Your task to perform on an android device: open app "Lyft - Rideshare, Bikes, Scooters & Transit" (install if not already installed) Image 0: 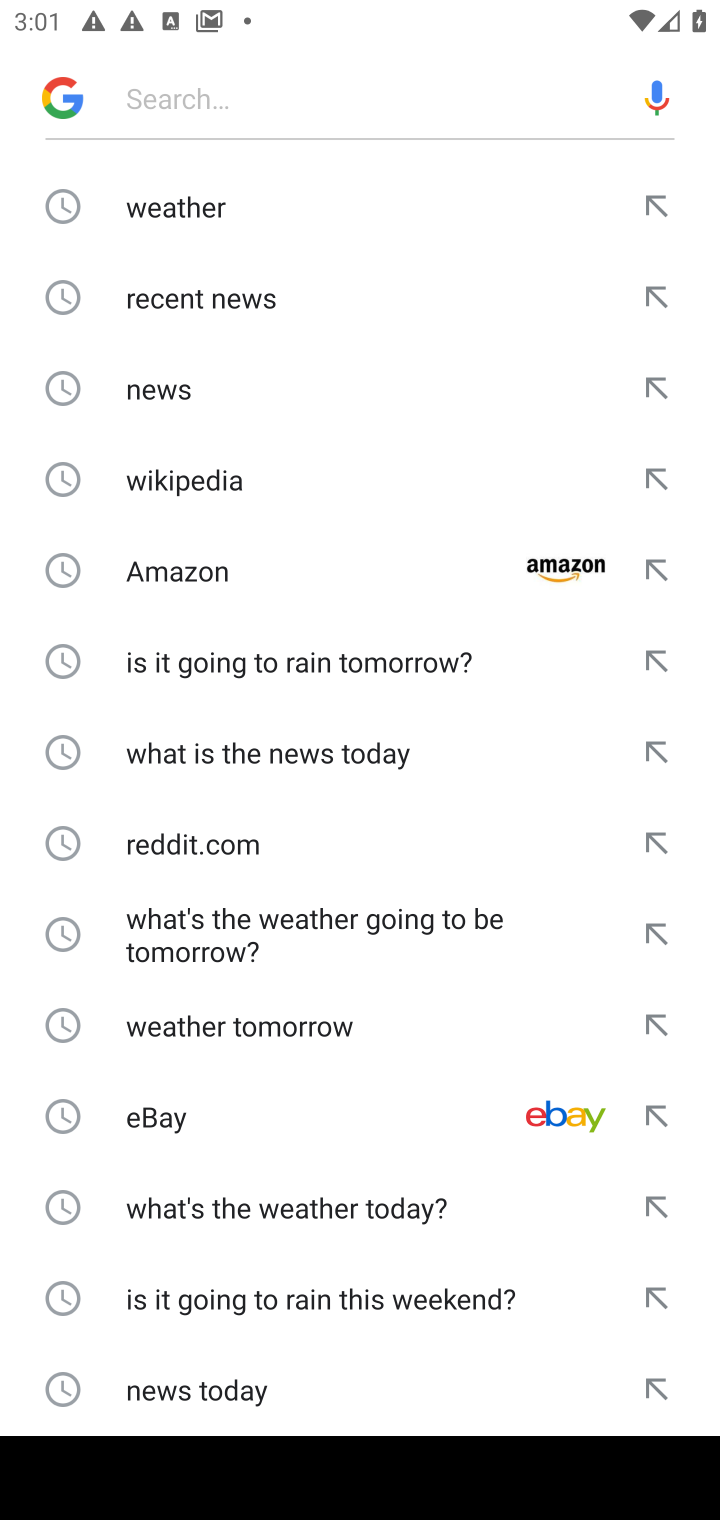
Step 0: press home button
Your task to perform on an android device: open app "Lyft - Rideshare, Bikes, Scooters & Transit" (install if not already installed) Image 1: 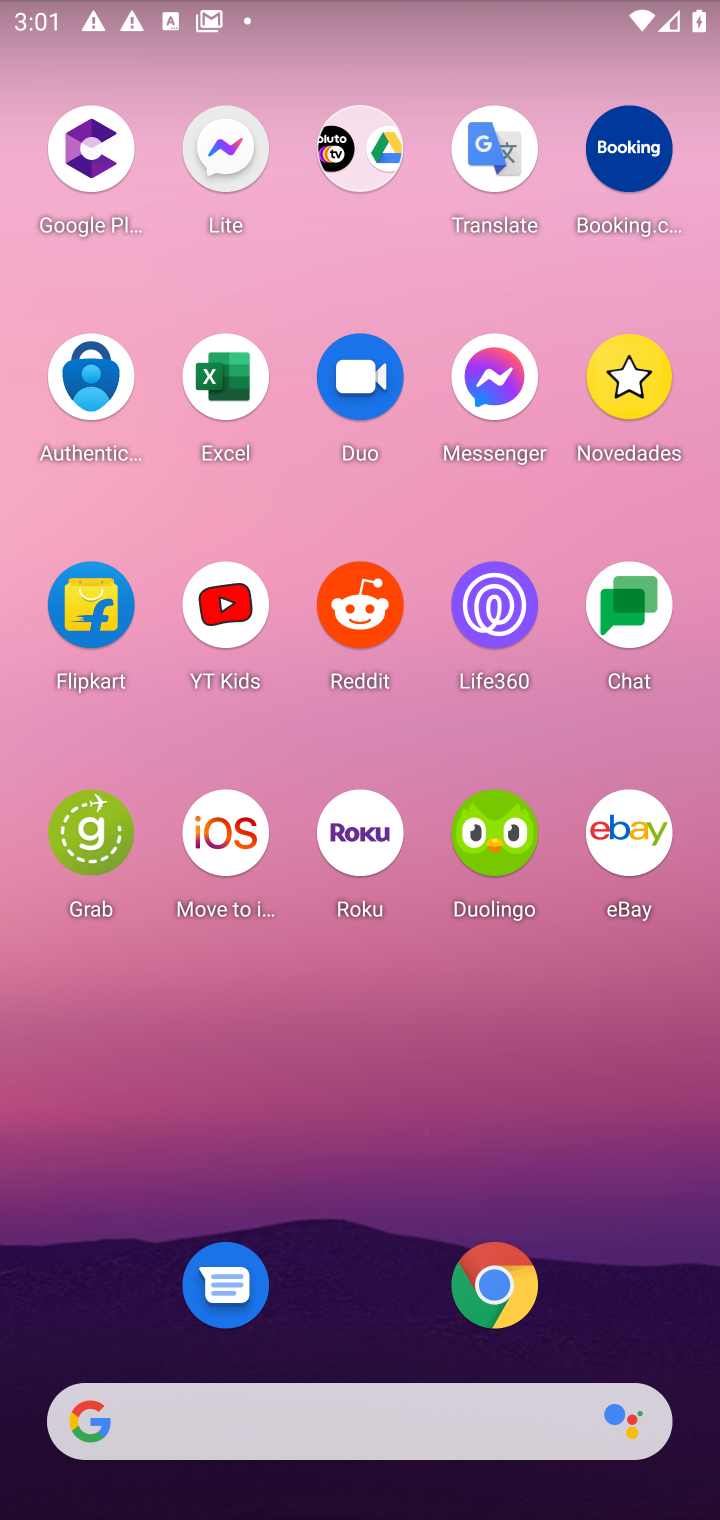
Step 1: drag from (383, 1143) to (178, 164)
Your task to perform on an android device: open app "Lyft - Rideshare, Bikes, Scooters & Transit" (install if not already installed) Image 2: 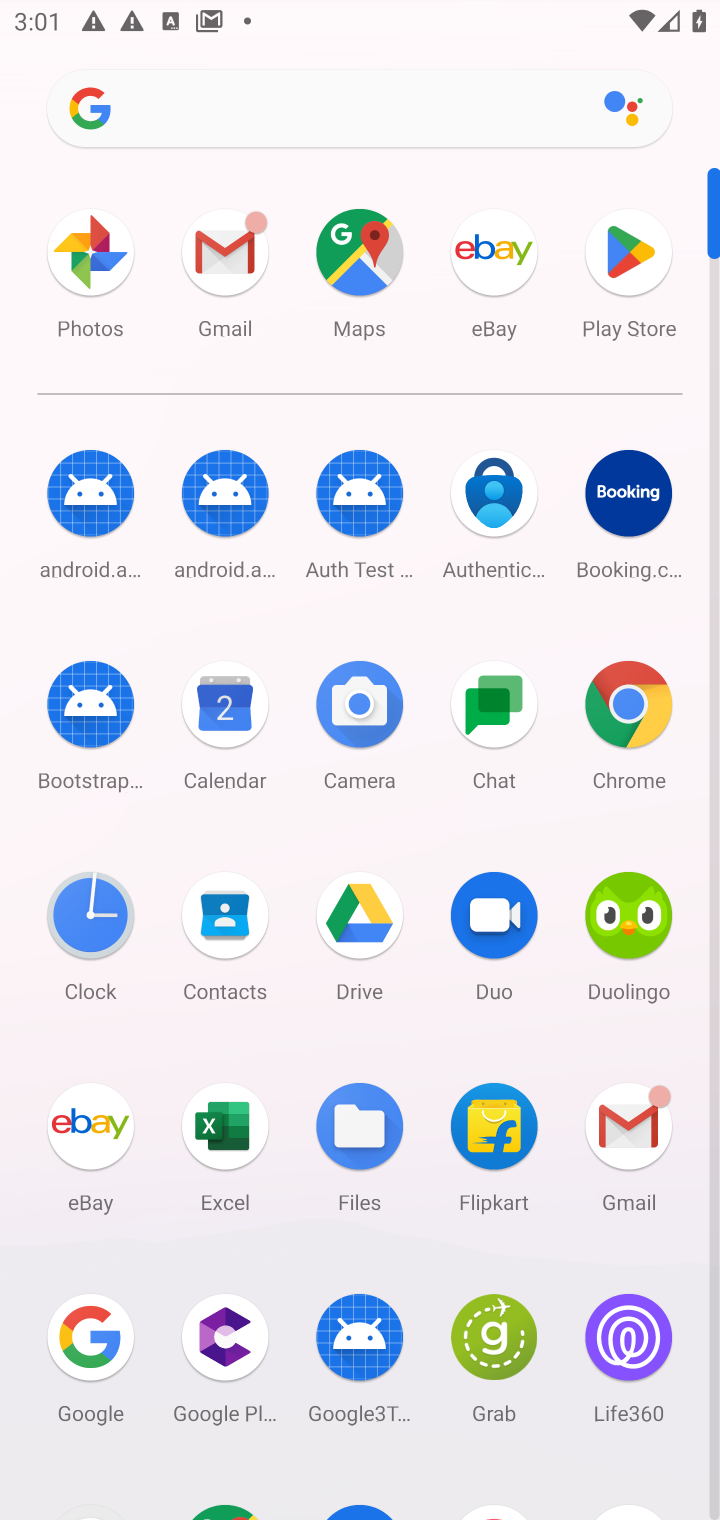
Step 2: click (637, 200)
Your task to perform on an android device: open app "Lyft - Rideshare, Bikes, Scooters & Transit" (install if not already installed) Image 3: 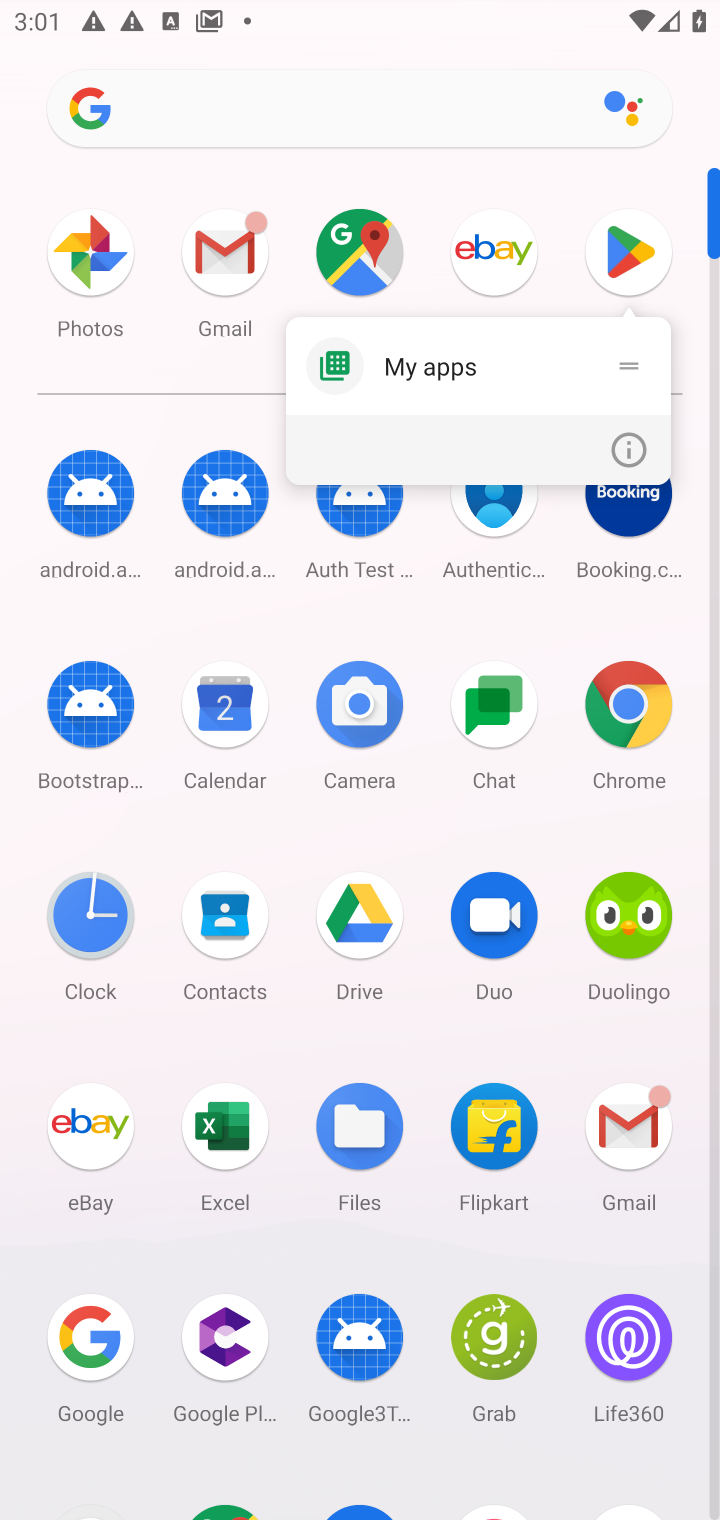
Step 3: click (306, 1224)
Your task to perform on an android device: open app "Lyft - Rideshare, Bikes, Scooters & Transit" (install if not already installed) Image 4: 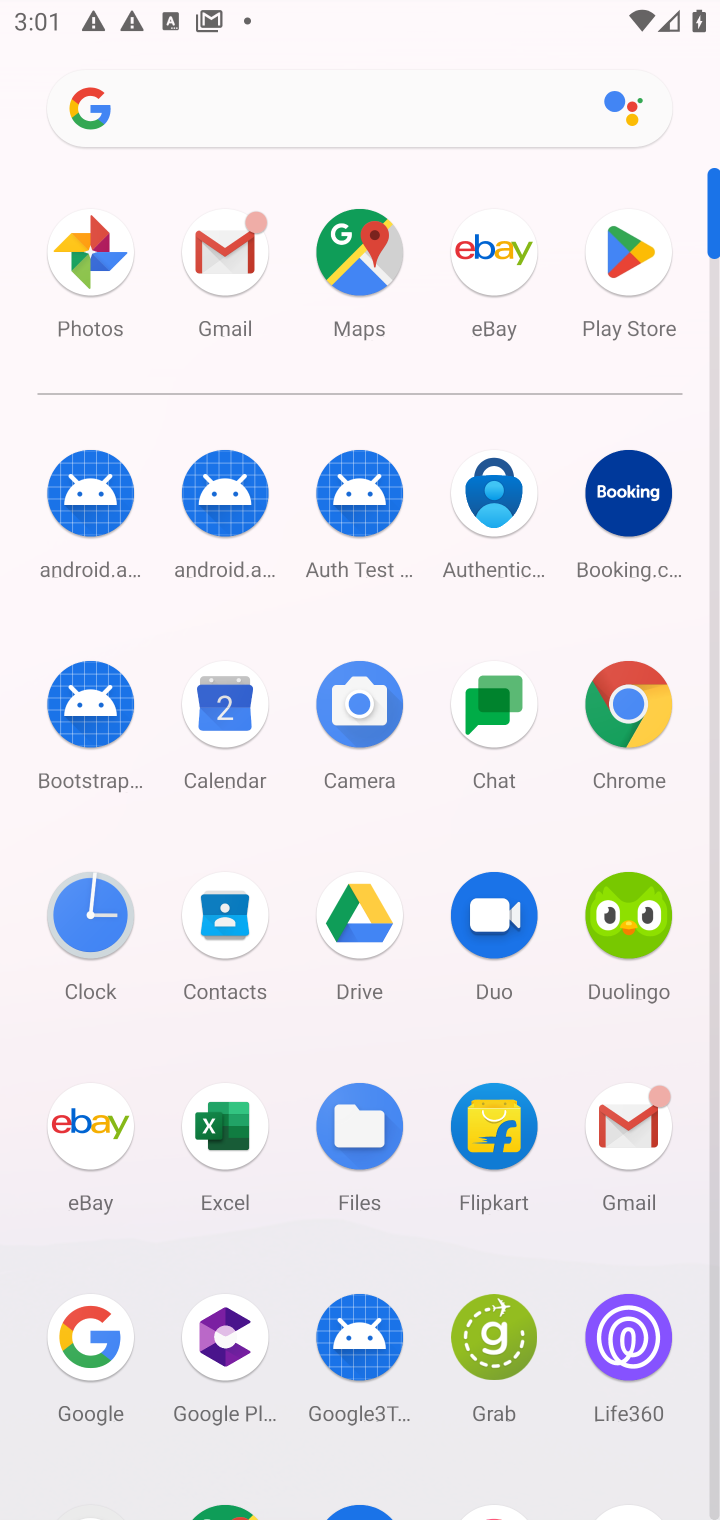
Step 4: drag from (304, 1231) to (306, 610)
Your task to perform on an android device: open app "Lyft - Rideshare, Bikes, Scooters & Transit" (install if not already installed) Image 5: 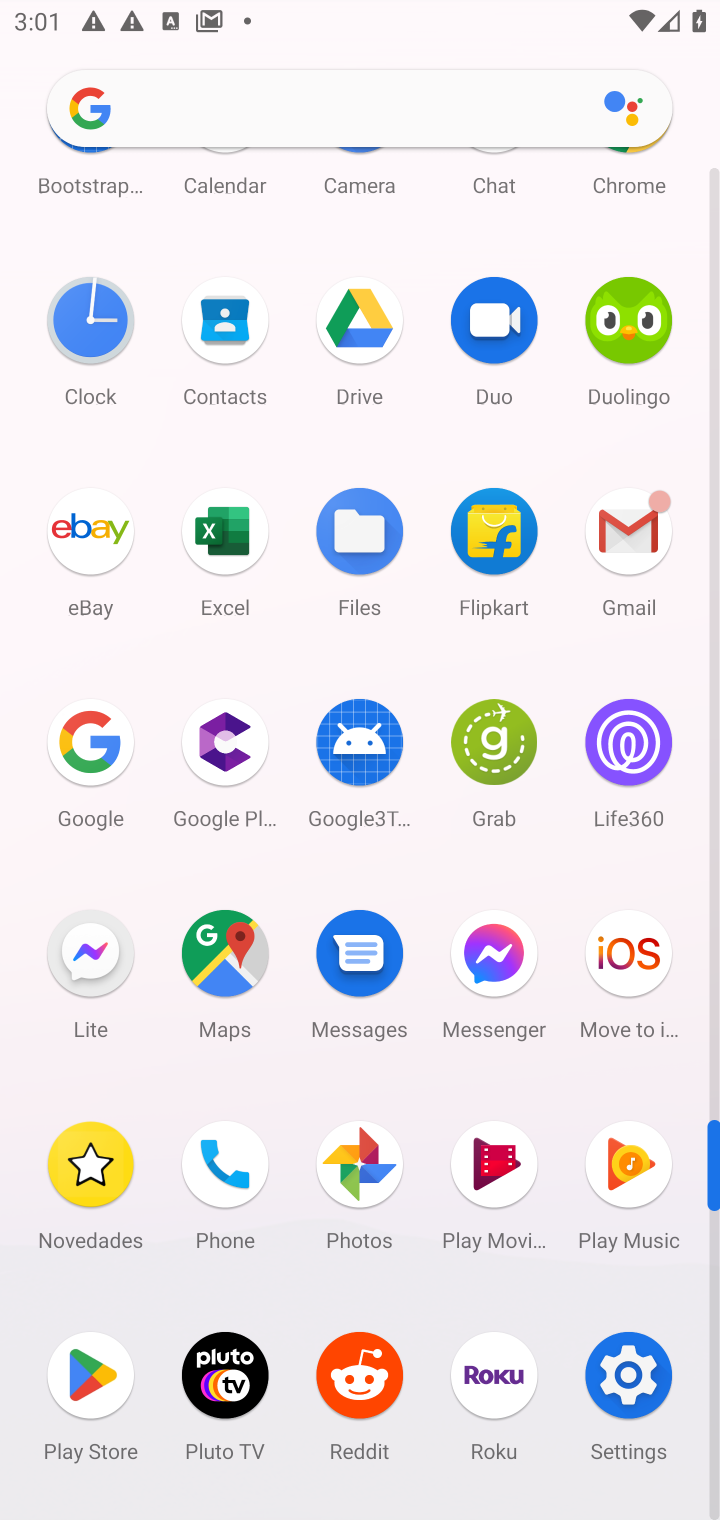
Step 5: click (110, 1363)
Your task to perform on an android device: open app "Lyft - Rideshare, Bikes, Scooters & Transit" (install if not already installed) Image 6: 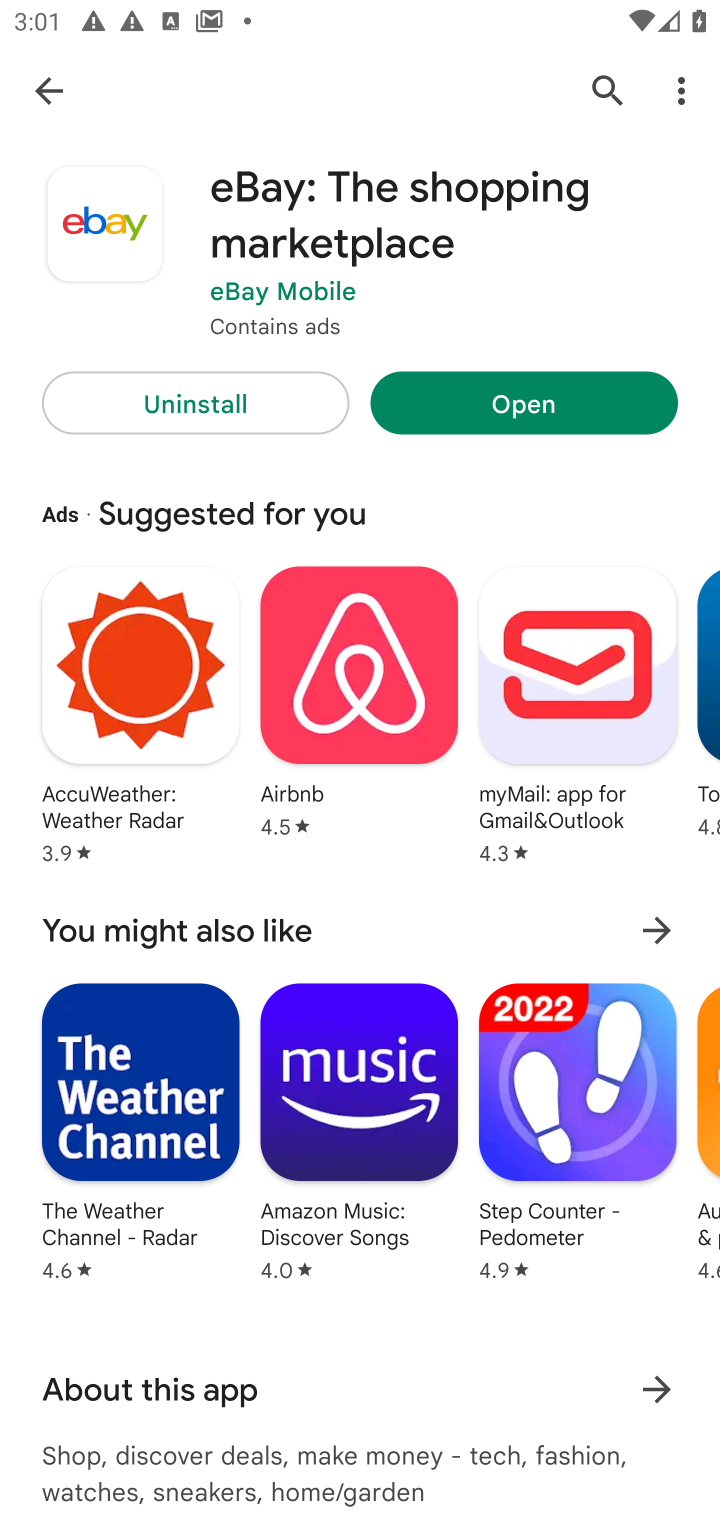
Step 6: click (593, 86)
Your task to perform on an android device: open app "Lyft - Rideshare, Bikes, Scooters & Transit" (install if not already installed) Image 7: 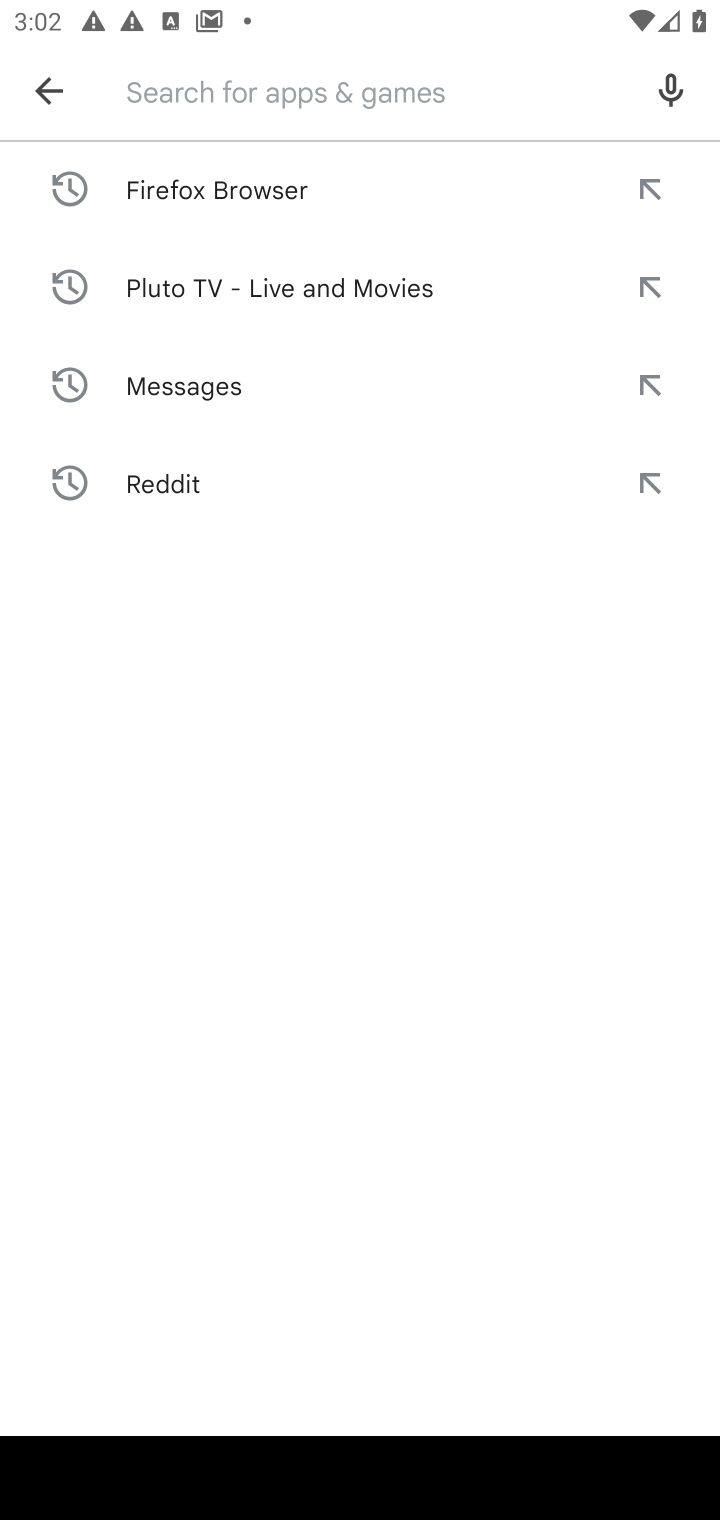
Step 7: type "Lyft - Rideshare, Bikes, Scooters & Transit"
Your task to perform on an android device: open app "Lyft - Rideshare, Bikes, Scooters & Transit" (install if not already installed) Image 8: 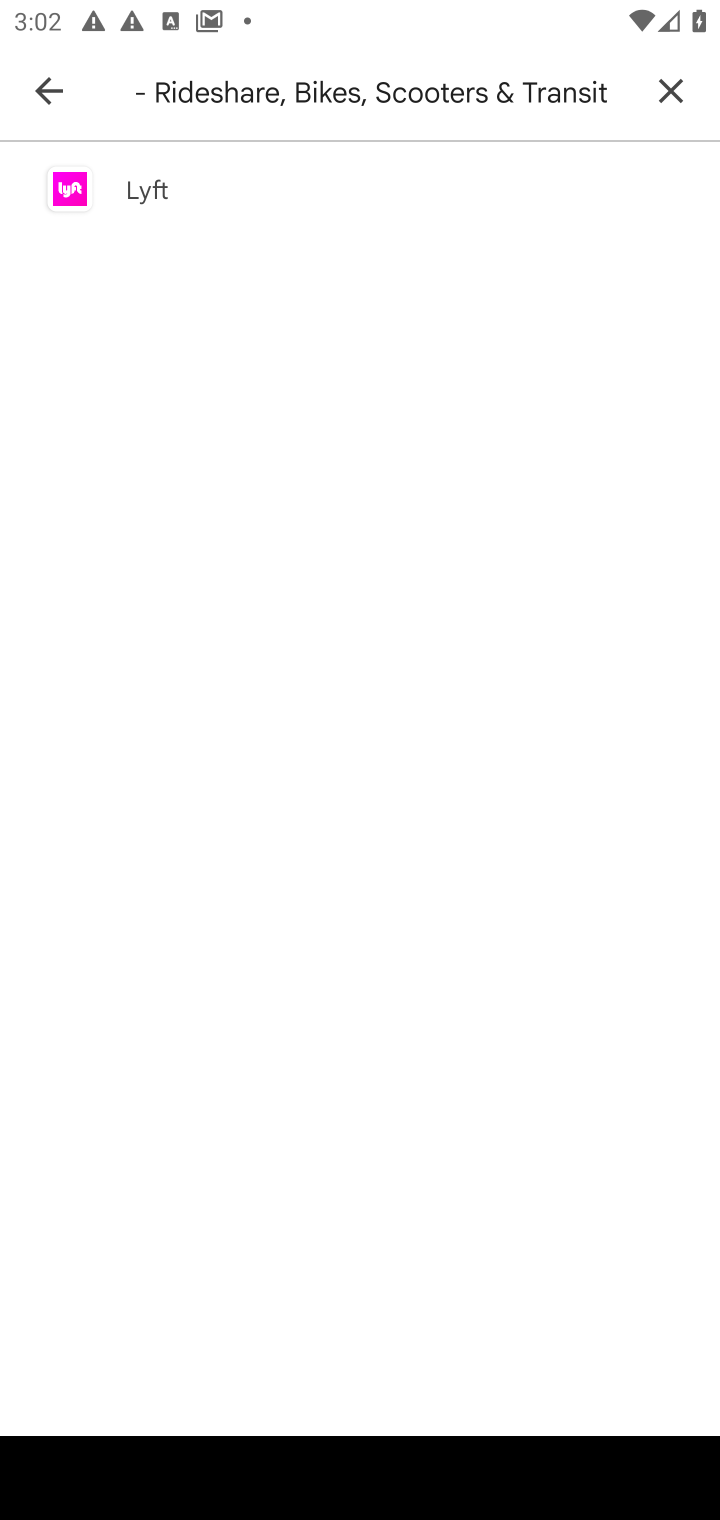
Step 8: press enter
Your task to perform on an android device: open app "Lyft - Rideshare, Bikes, Scooters & Transit" (install if not already installed) Image 9: 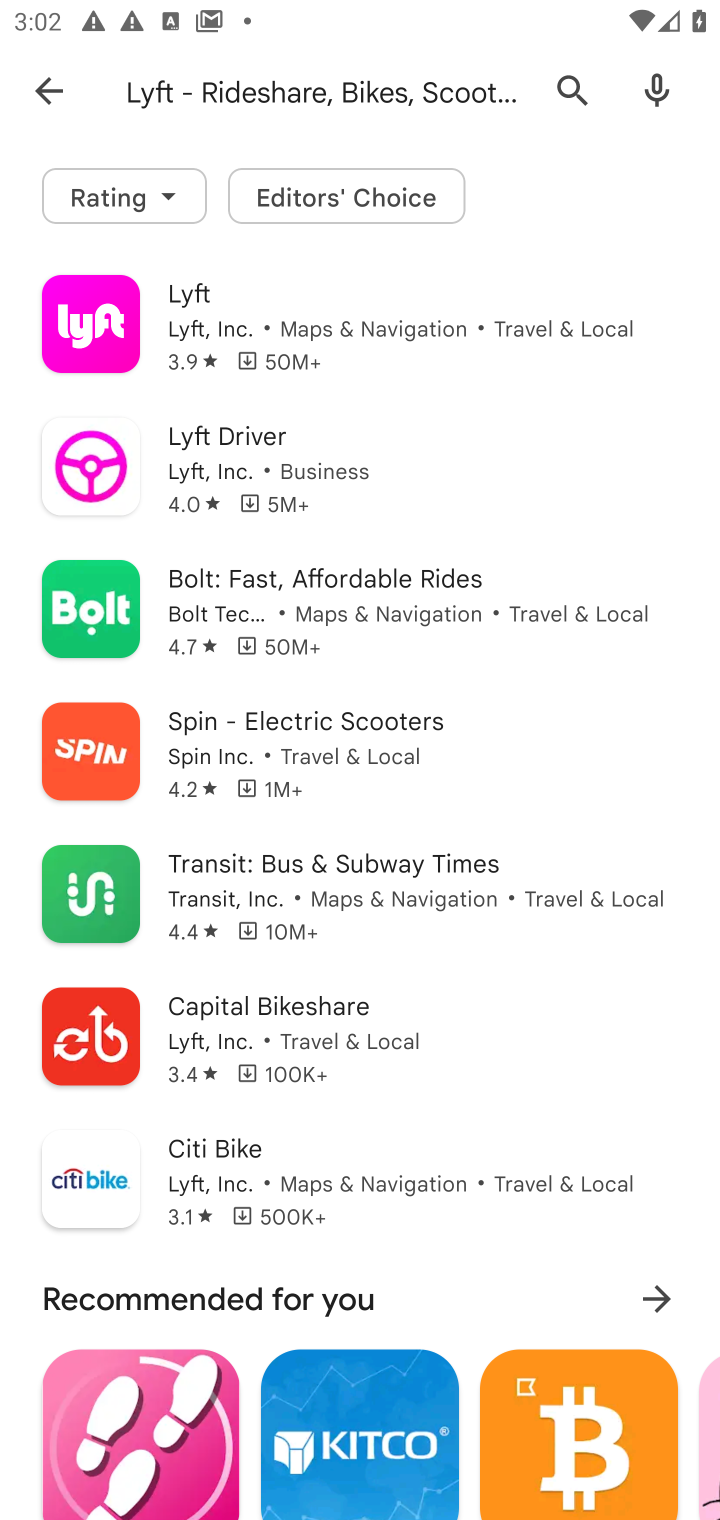
Step 9: click (186, 331)
Your task to perform on an android device: open app "Lyft - Rideshare, Bikes, Scooters & Transit" (install if not already installed) Image 10: 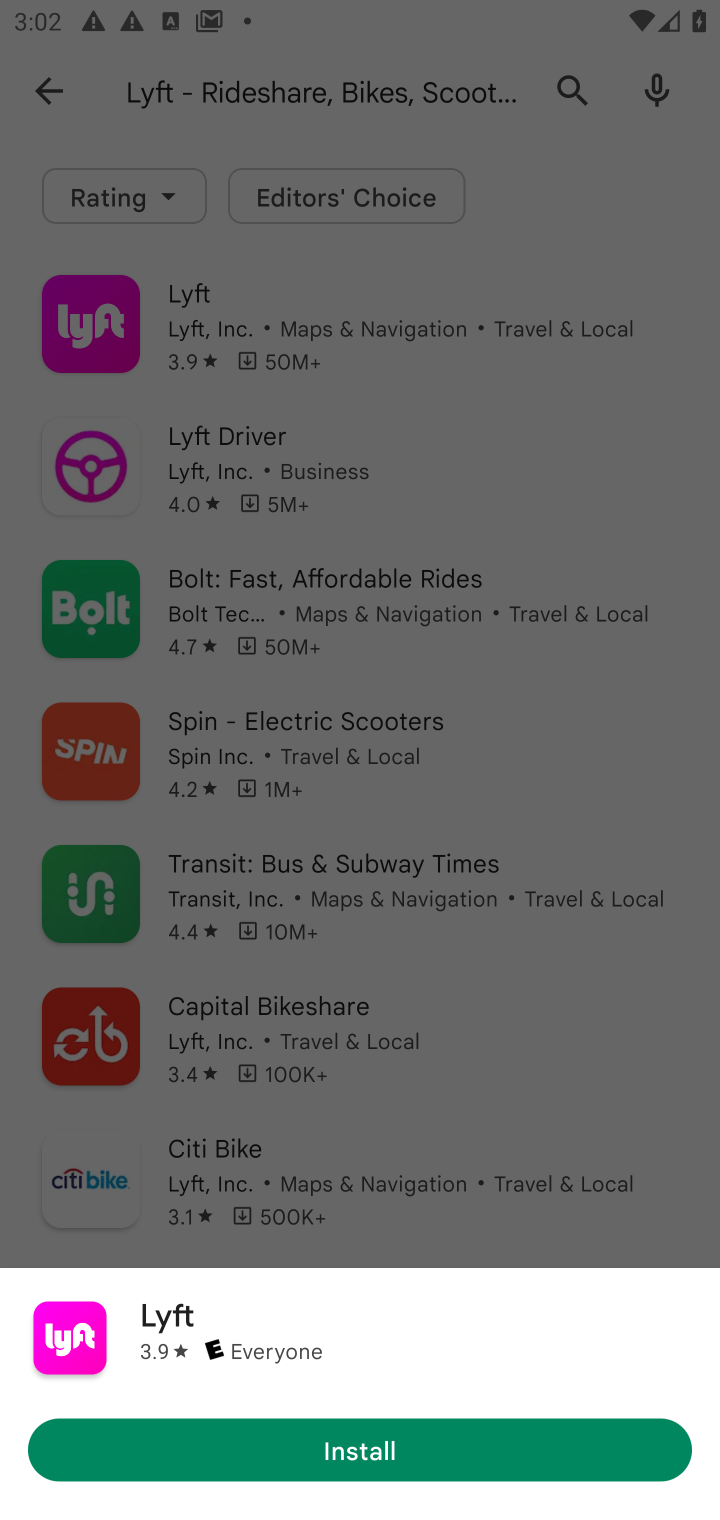
Step 10: click (517, 1447)
Your task to perform on an android device: open app "Lyft - Rideshare, Bikes, Scooters & Transit" (install if not already installed) Image 11: 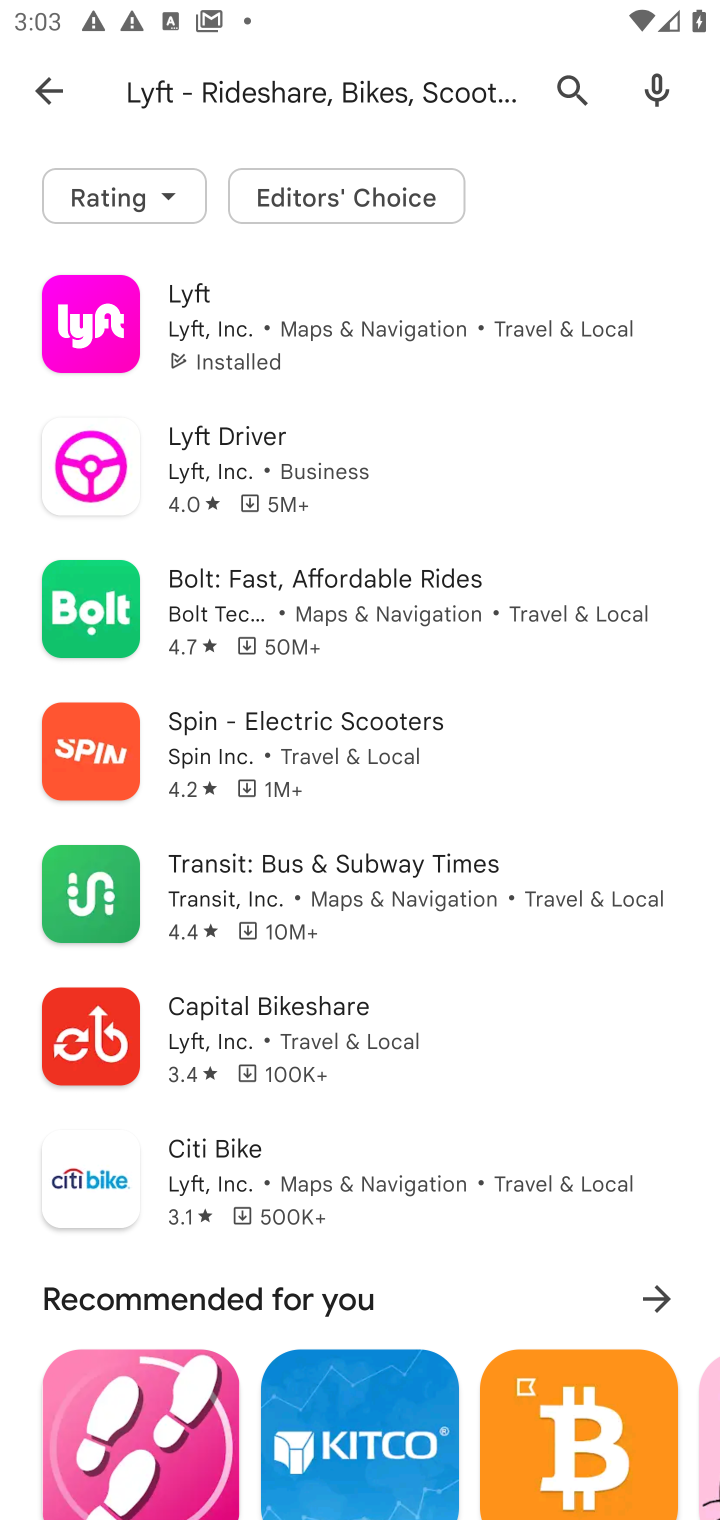
Step 11: click (162, 312)
Your task to perform on an android device: open app "Lyft - Rideshare, Bikes, Scooters & Transit" (install if not already installed) Image 12: 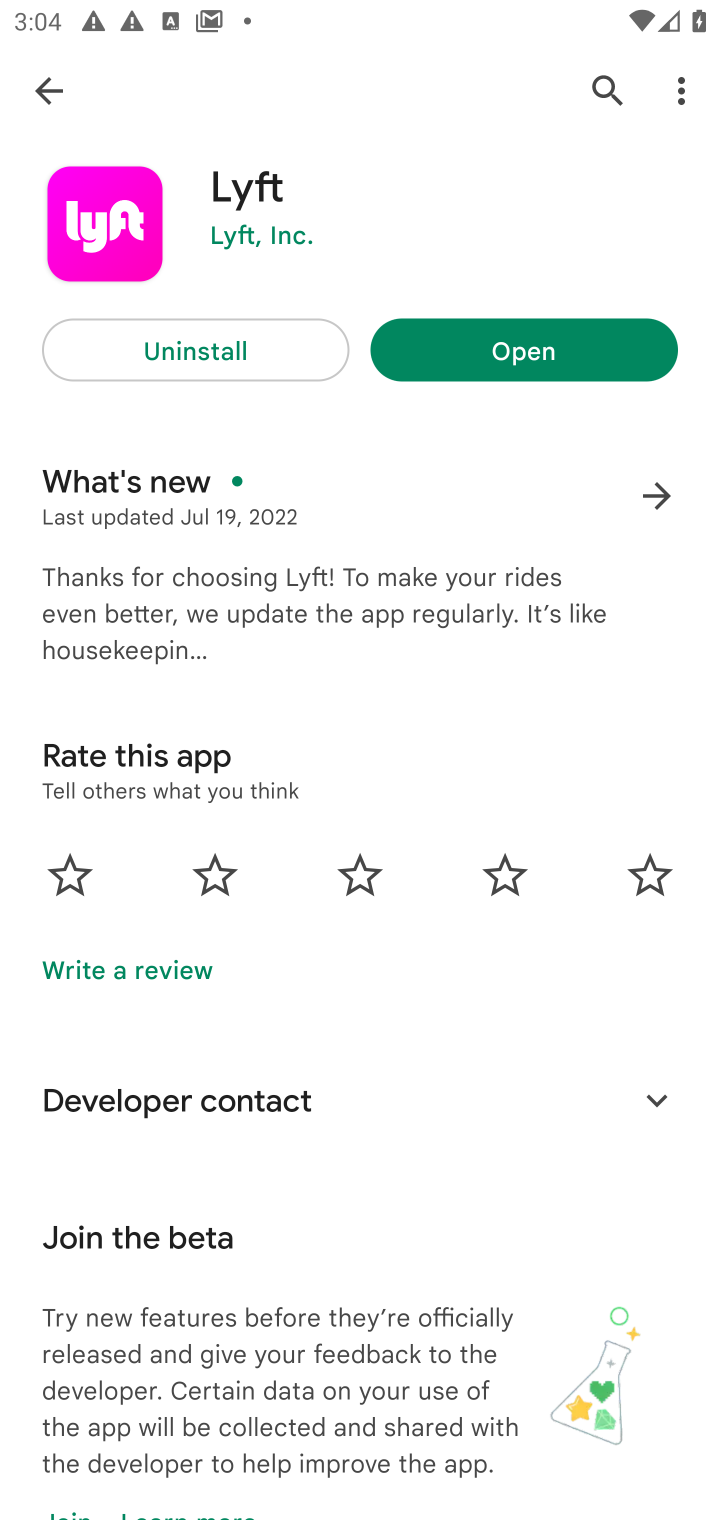
Step 12: click (481, 341)
Your task to perform on an android device: open app "Lyft - Rideshare, Bikes, Scooters & Transit" (install if not already installed) Image 13: 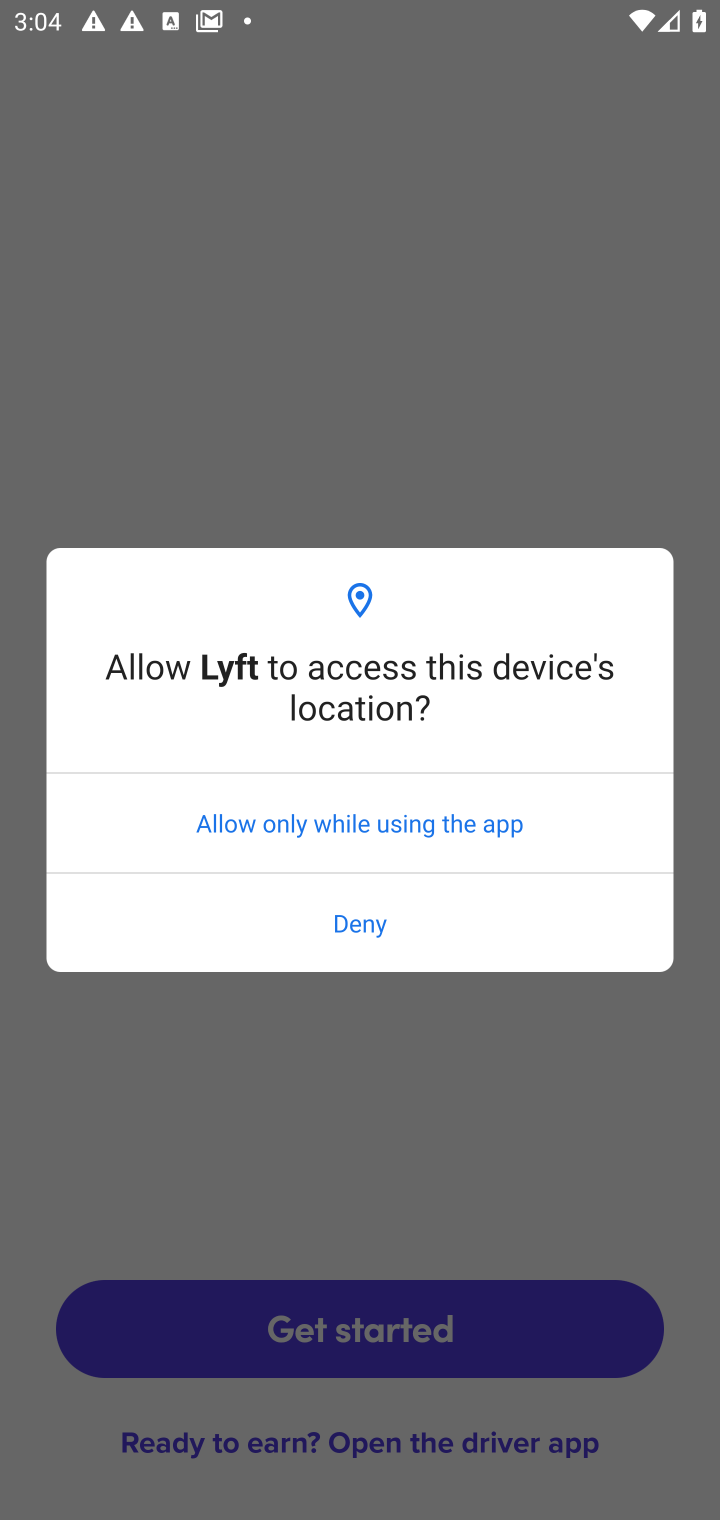
Step 13: task complete